Your task to perform on an android device: Clear the cart on target.com. Search for "lenovo thinkpad" on target.com, select the first entry, and add it to the cart. Image 0: 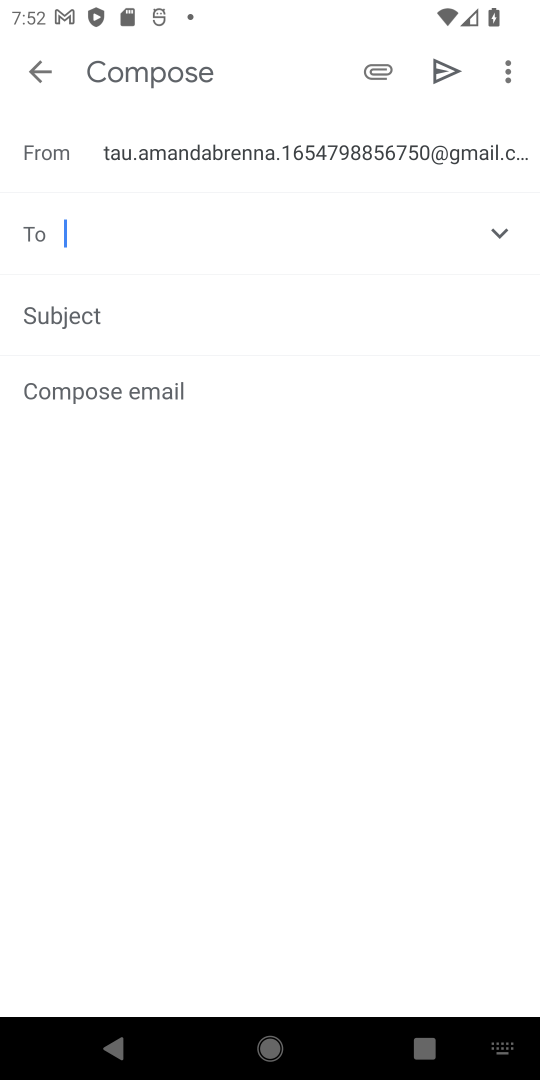
Step 0: press home button
Your task to perform on an android device: Clear the cart on target.com. Search for "lenovo thinkpad" on target.com, select the first entry, and add it to the cart. Image 1: 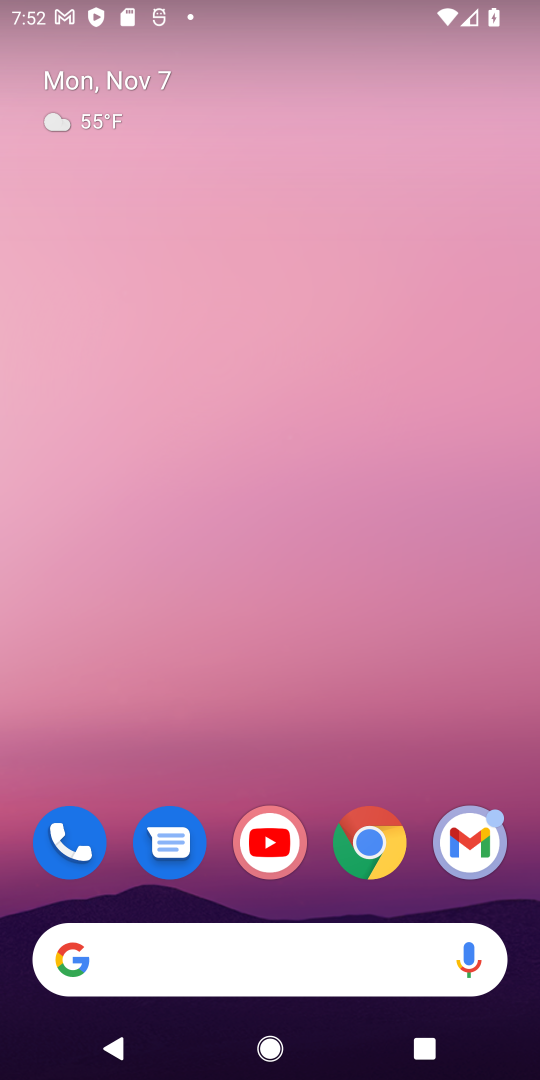
Step 1: click (386, 841)
Your task to perform on an android device: Clear the cart on target.com. Search for "lenovo thinkpad" on target.com, select the first entry, and add it to the cart. Image 2: 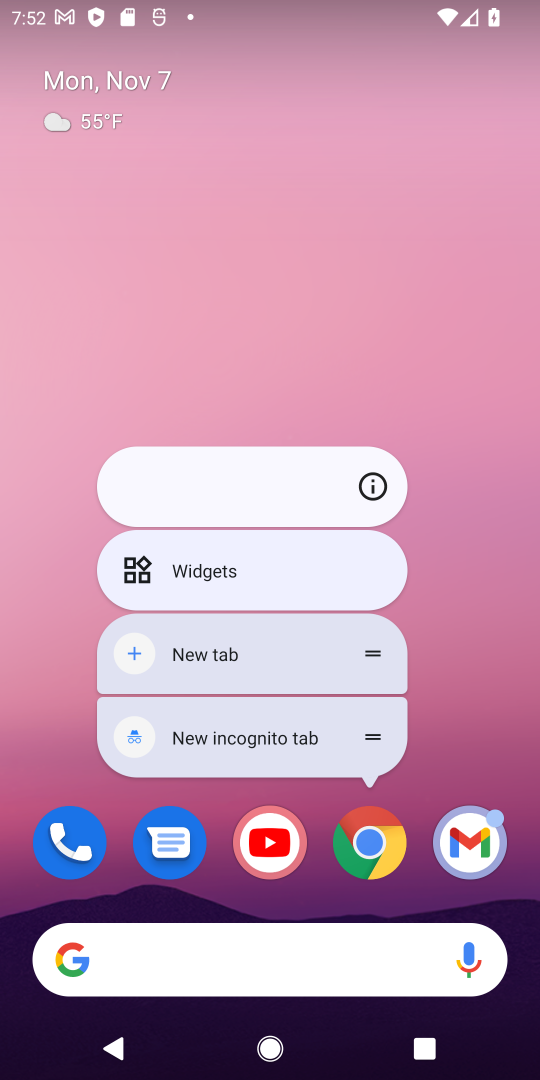
Step 2: click (371, 837)
Your task to perform on an android device: Clear the cart on target.com. Search for "lenovo thinkpad" on target.com, select the first entry, and add it to the cart. Image 3: 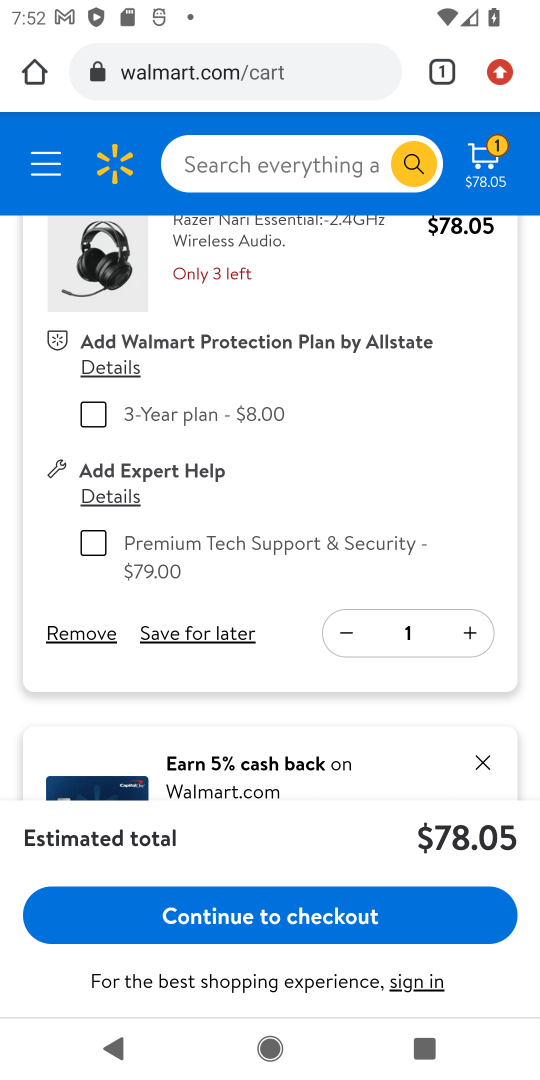
Step 3: click (256, 69)
Your task to perform on an android device: Clear the cart on target.com. Search for "lenovo thinkpad" on target.com, select the first entry, and add it to the cart. Image 4: 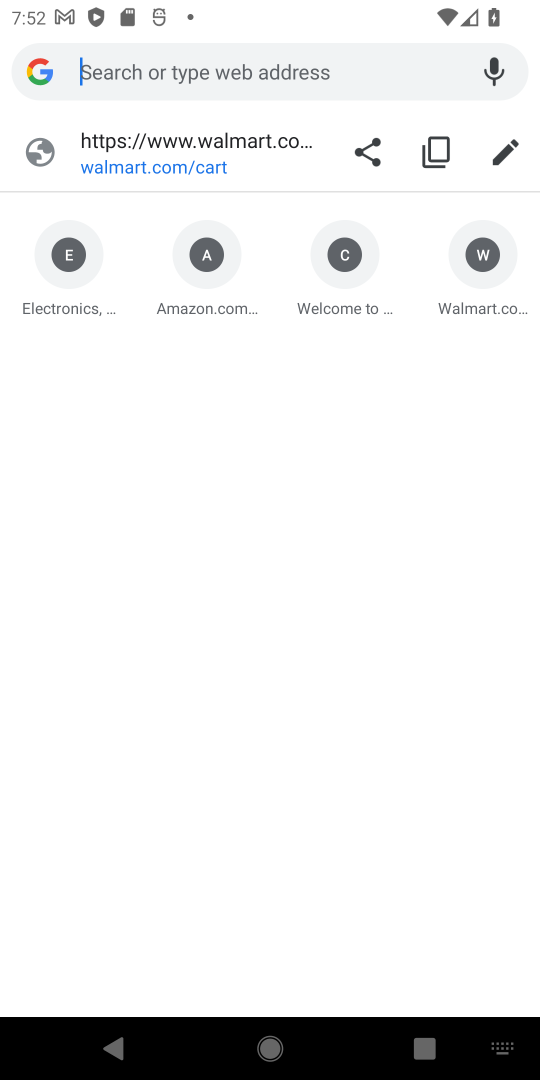
Step 4: drag from (452, 273) to (3, 267)
Your task to perform on an android device: Clear the cart on target.com. Search for "lenovo thinkpad" on target.com, select the first entry, and add it to the cart. Image 5: 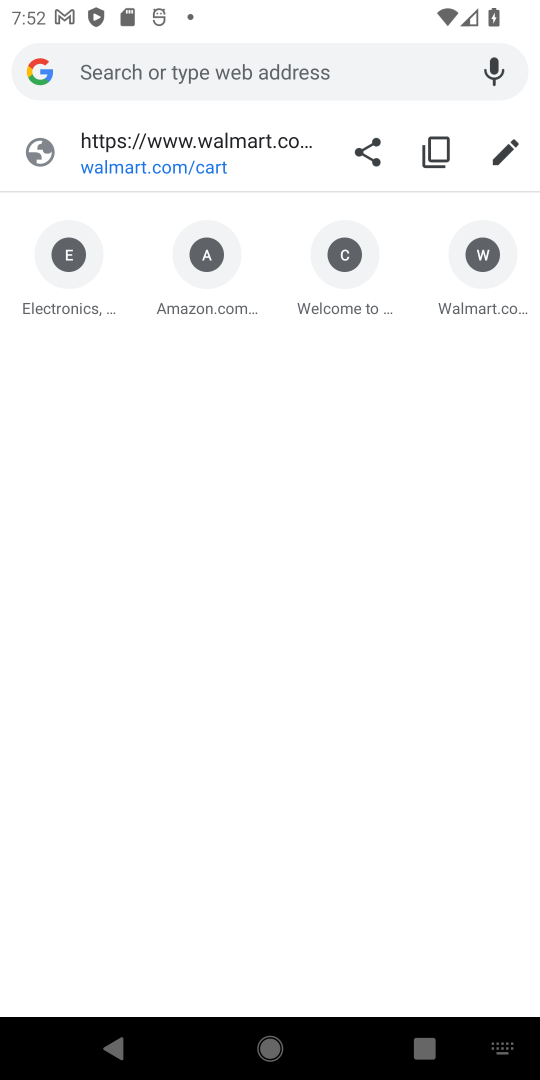
Step 5: drag from (105, 261) to (476, 252)
Your task to perform on an android device: Clear the cart on target.com. Search for "lenovo thinkpad" on target.com, select the first entry, and add it to the cart. Image 6: 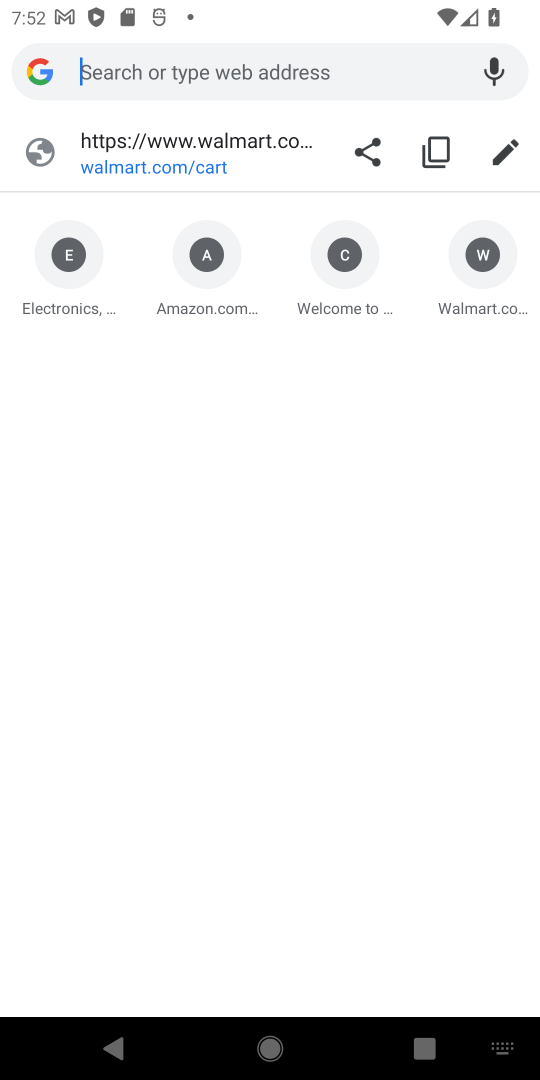
Step 6: drag from (0, 248) to (1, 563)
Your task to perform on an android device: Clear the cart on target.com. Search for "lenovo thinkpad" on target.com, select the first entry, and add it to the cart. Image 7: 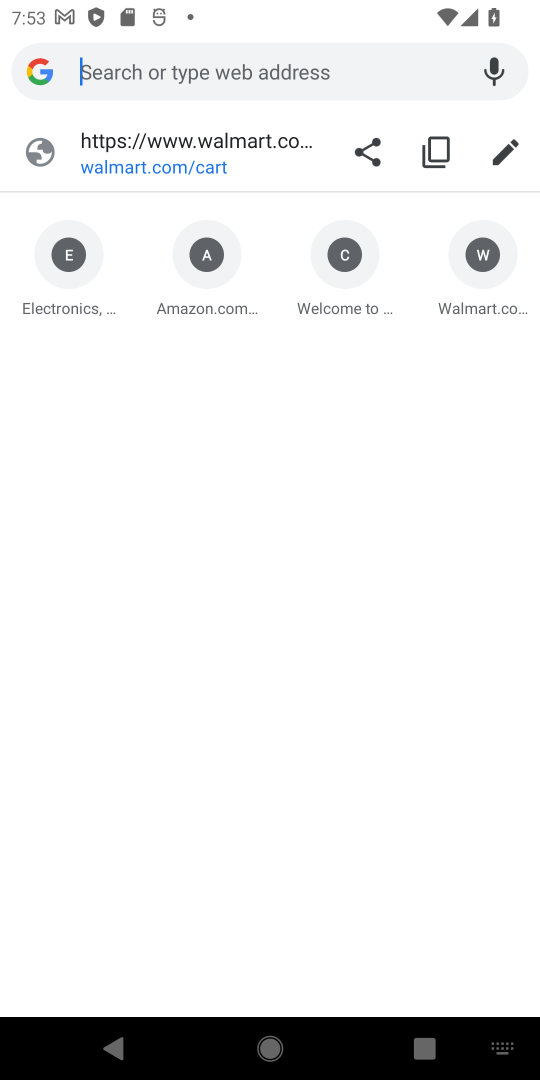
Step 7: type "target.com"
Your task to perform on an android device: Clear the cart on target.com. Search for "lenovo thinkpad" on target.com, select the first entry, and add it to the cart. Image 8: 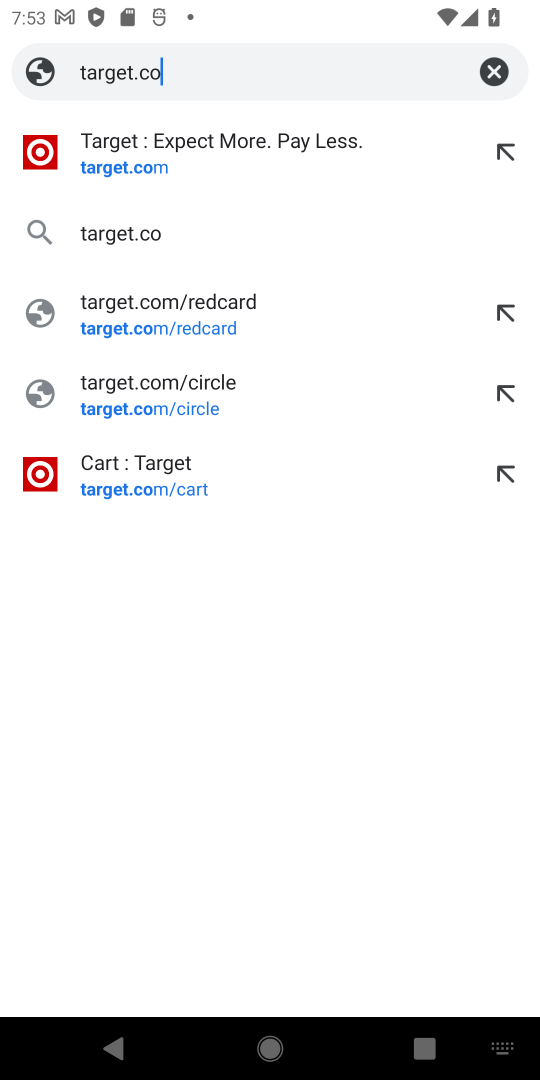
Step 8: press enter
Your task to perform on an android device: Clear the cart on target.com. Search for "lenovo thinkpad" on target.com, select the first entry, and add it to the cart. Image 9: 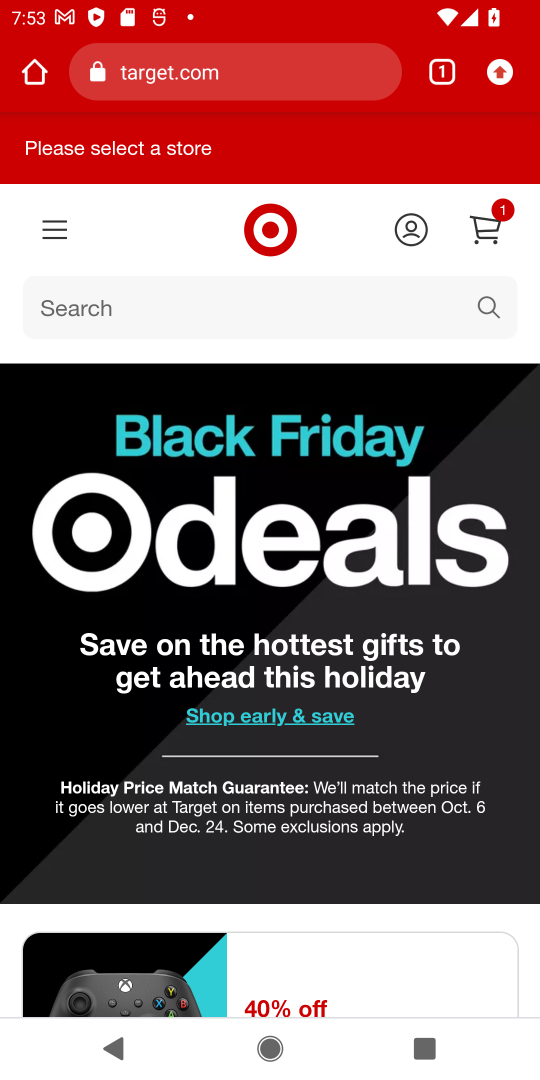
Step 9: click (167, 316)
Your task to perform on an android device: Clear the cart on target.com. Search for "lenovo thinkpad" on target.com, select the first entry, and add it to the cart. Image 10: 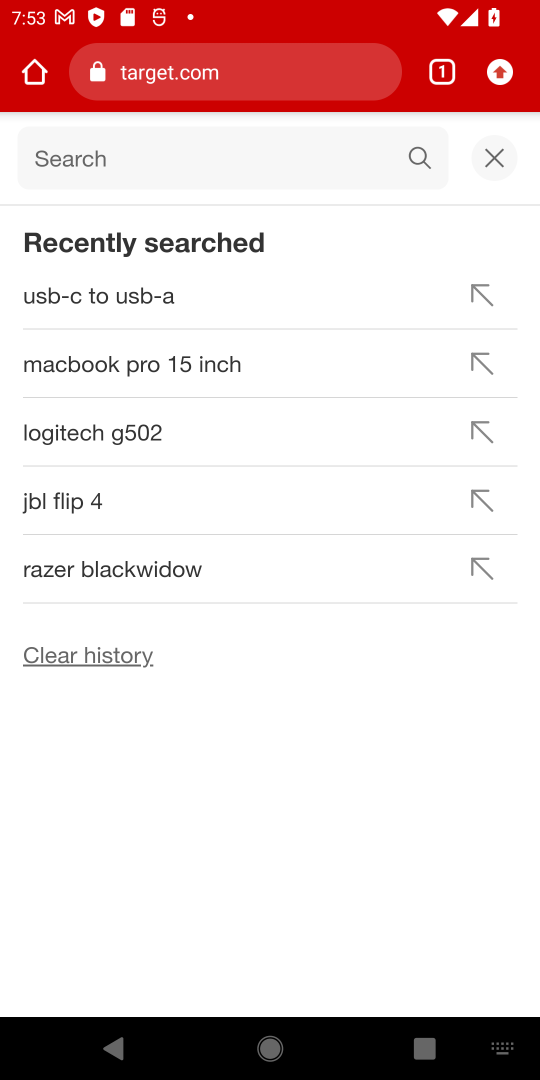
Step 10: type "lenovo thinkpad"
Your task to perform on an android device: Clear the cart on target.com. Search for "lenovo thinkpad" on target.com, select the first entry, and add it to the cart. Image 11: 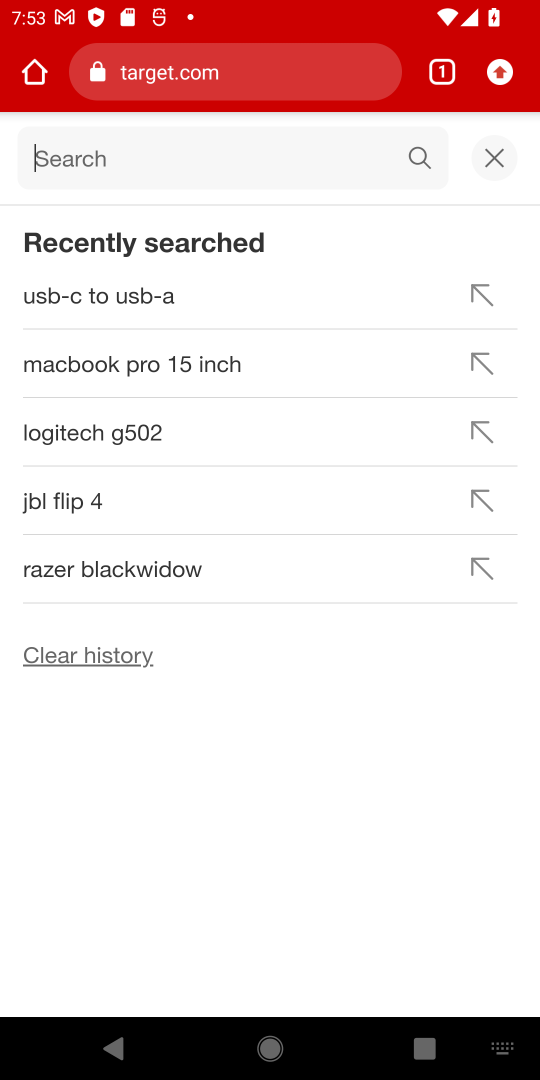
Step 11: press enter
Your task to perform on an android device: Clear the cart on target.com. Search for "lenovo thinkpad" on target.com, select the first entry, and add it to the cart. Image 12: 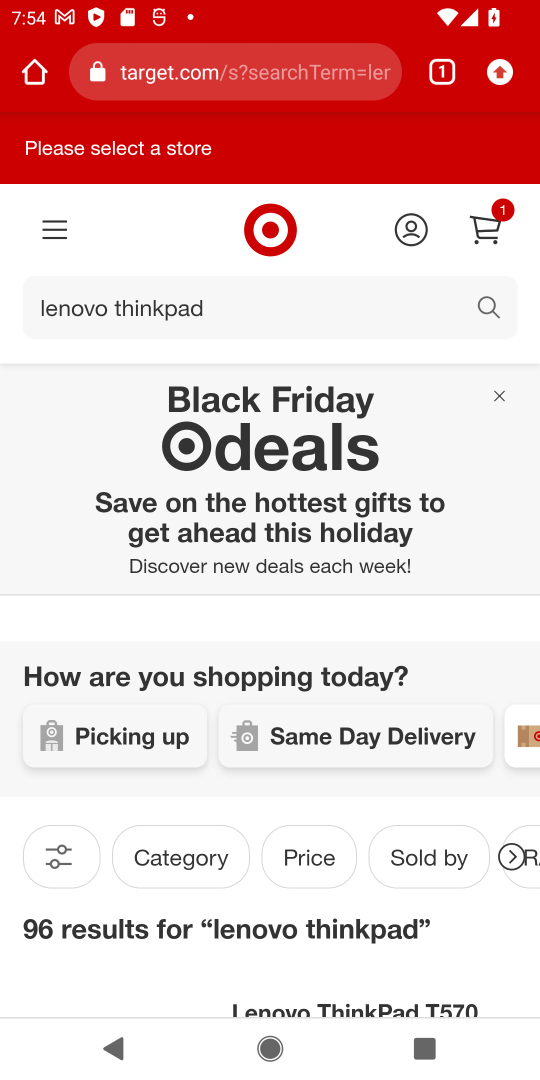
Step 12: drag from (178, 977) to (384, 411)
Your task to perform on an android device: Clear the cart on target.com. Search for "lenovo thinkpad" on target.com, select the first entry, and add it to the cart. Image 13: 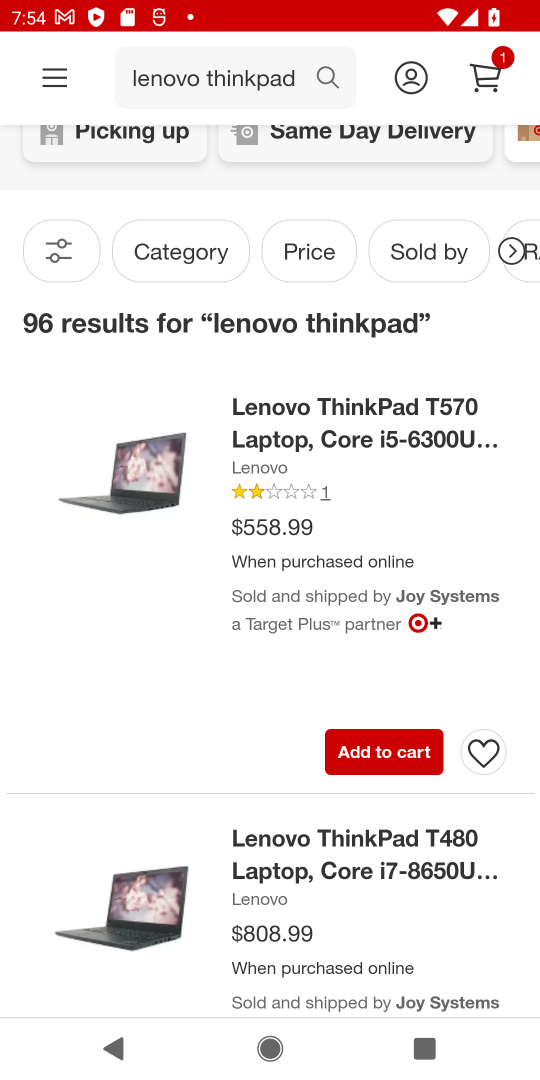
Step 13: click (394, 749)
Your task to perform on an android device: Clear the cart on target.com. Search for "lenovo thinkpad" on target.com, select the first entry, and add it to the cart. Image 14: 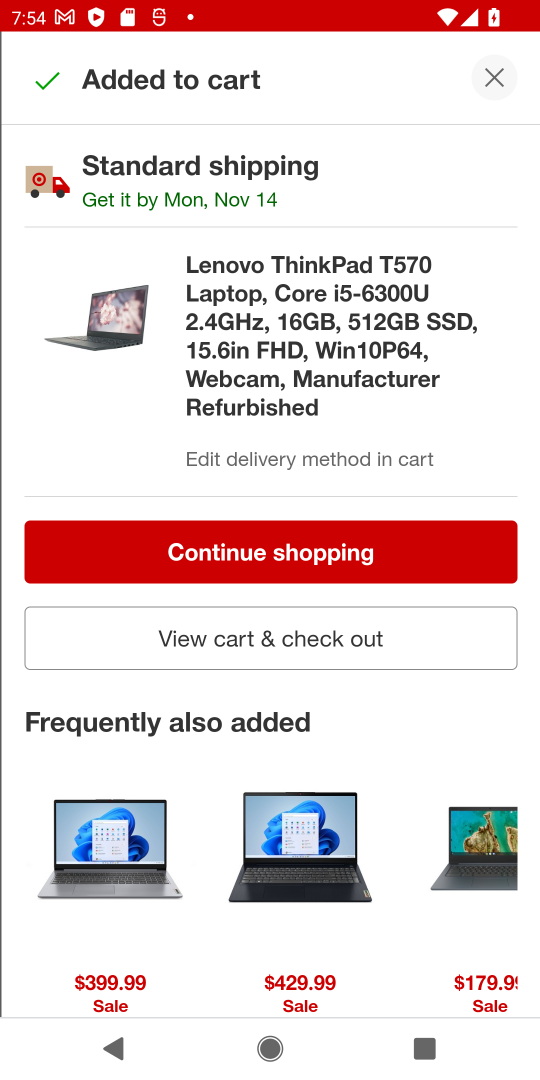
Step 14: click (252, 639)
Your task to perform on an android device: Clear the cart on target.com. Search for "lenovo thinkpad" on target.com, select the first entry, and add it to the cart. Image 15: 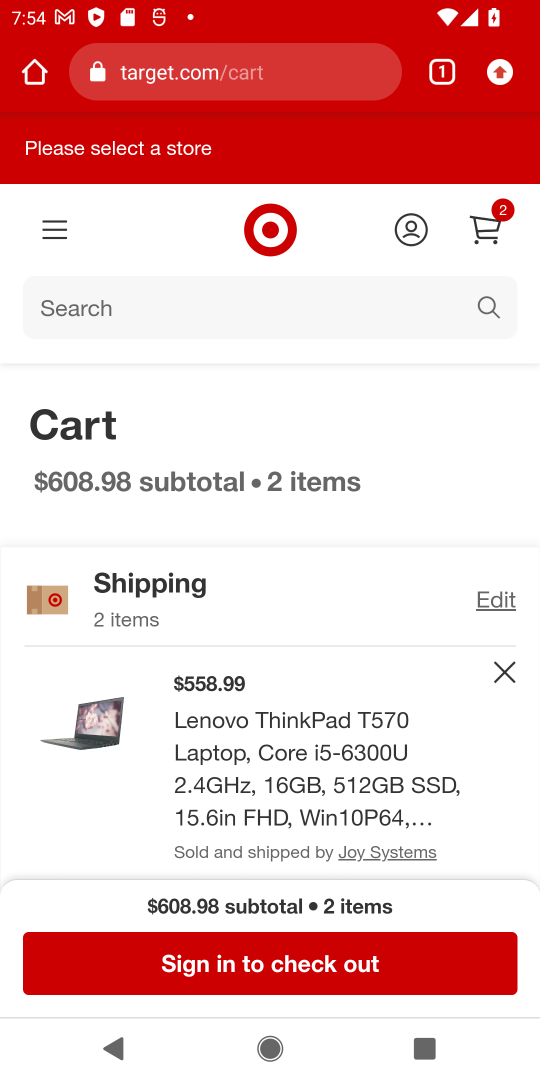
Step 15: drag from (175, 814) to (407, 388)
Your task to perform on an android device: Clear the cart on target.com. Search for "lenovo thinkpad" on target.com, select the first entry, and add it to the cart. Image 16: 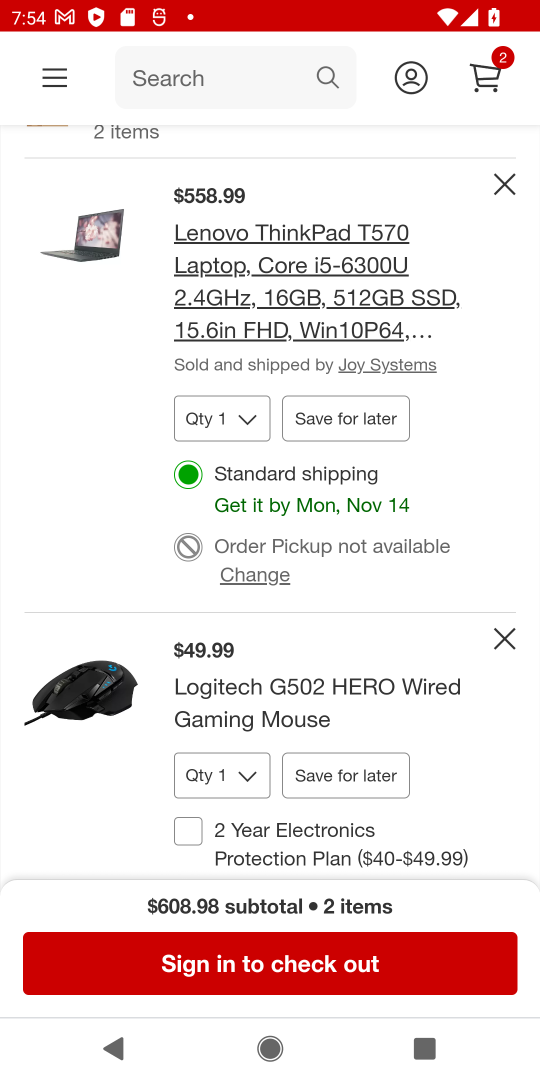
Step 16: click (506, 636)
Your task to perform on an android device: Clear the cart on target.com. Search for "lenovo thinkpad" on target.com, select the first entry, and add it to the cart. Image 17: 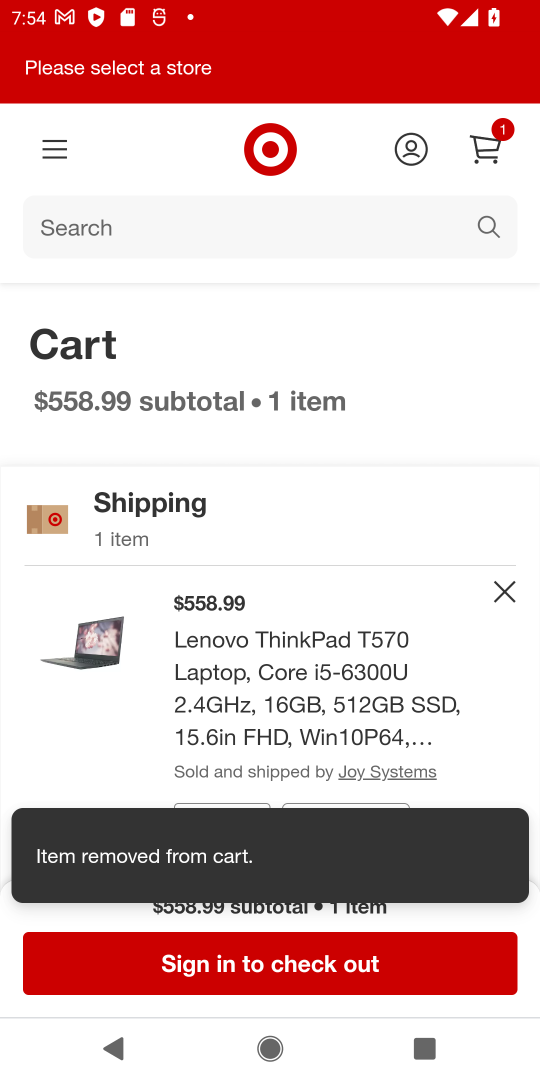
Step 17: task complete